Your task to perform on an android device: delete the emails in spam in the gmail app Image 0: 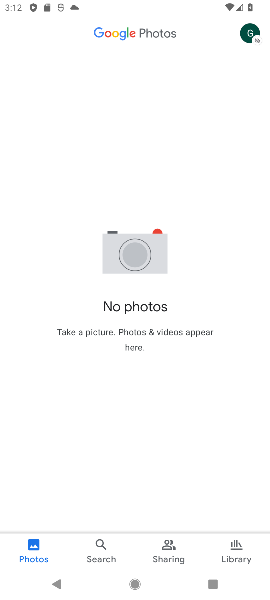
Step 0: press home button
Your task to perform on an android device: delete the emails in spam in the gmail app Image 1: 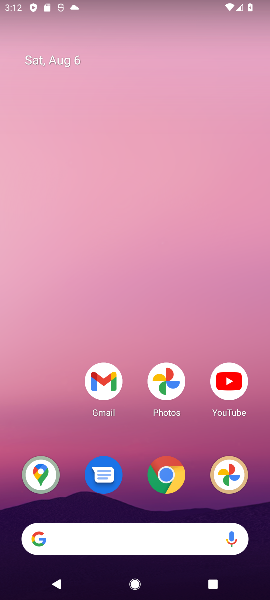
Step 1: drag from (19, 561) to (176, 170)
Your task to perform on an android device: delete the emails in spam in the gmail app Image 2: 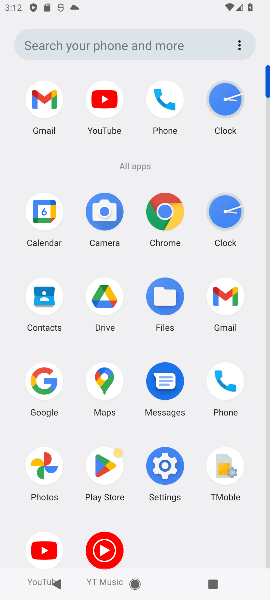
Step 2: click (223, 291)
Your task to perform on an android device: delete the emails in spam in the gmail app Image 3: 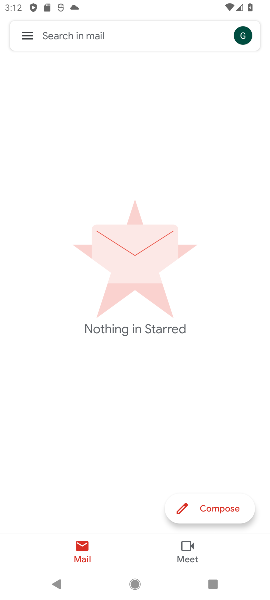
Step 3: click (30, 39)
Your task to perform on an android device: delete the emails in spam in the gmail app Image 4: 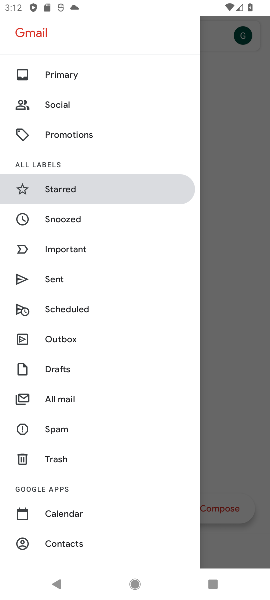
Step 4: click (58, 427)
Your task to perform on an android device: delete the emails in spam in the gmail app Image 5: 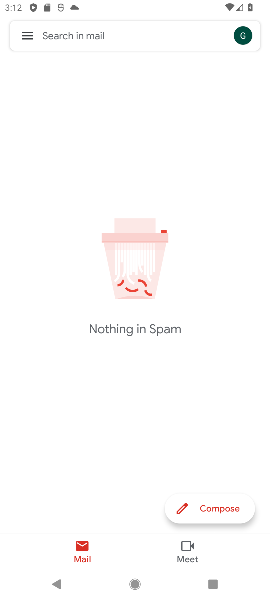
Step 5: task complete